Your task to perform on an android device: turn on improve location accuracy Image 0: 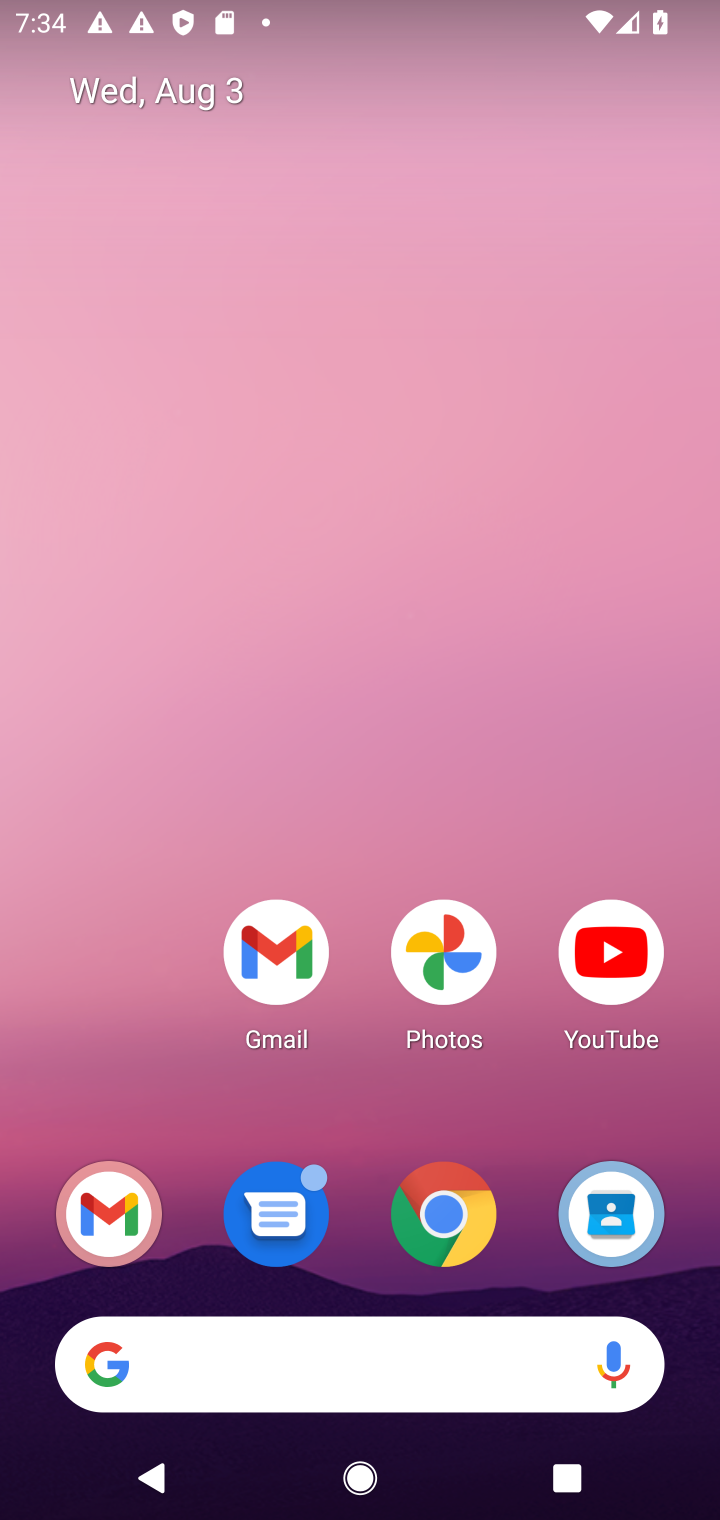
Step 0: drag from (384, 1009) to (508, 69)
Your task to perform on an android device: turn on improve location accuracy Image 1: 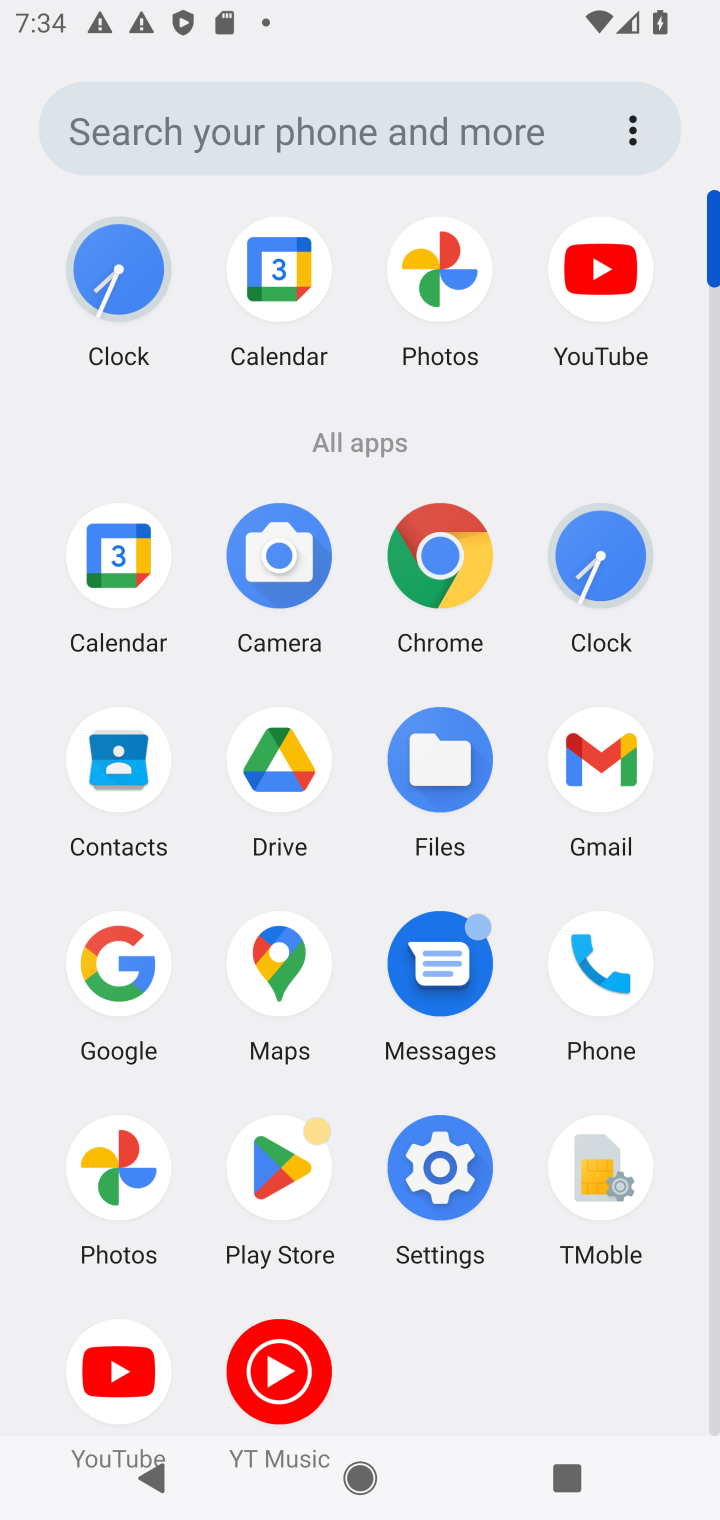
Step 1: click (437, 1162)
Your task to perform on an android device: turn on improve location accuracy Image 2: 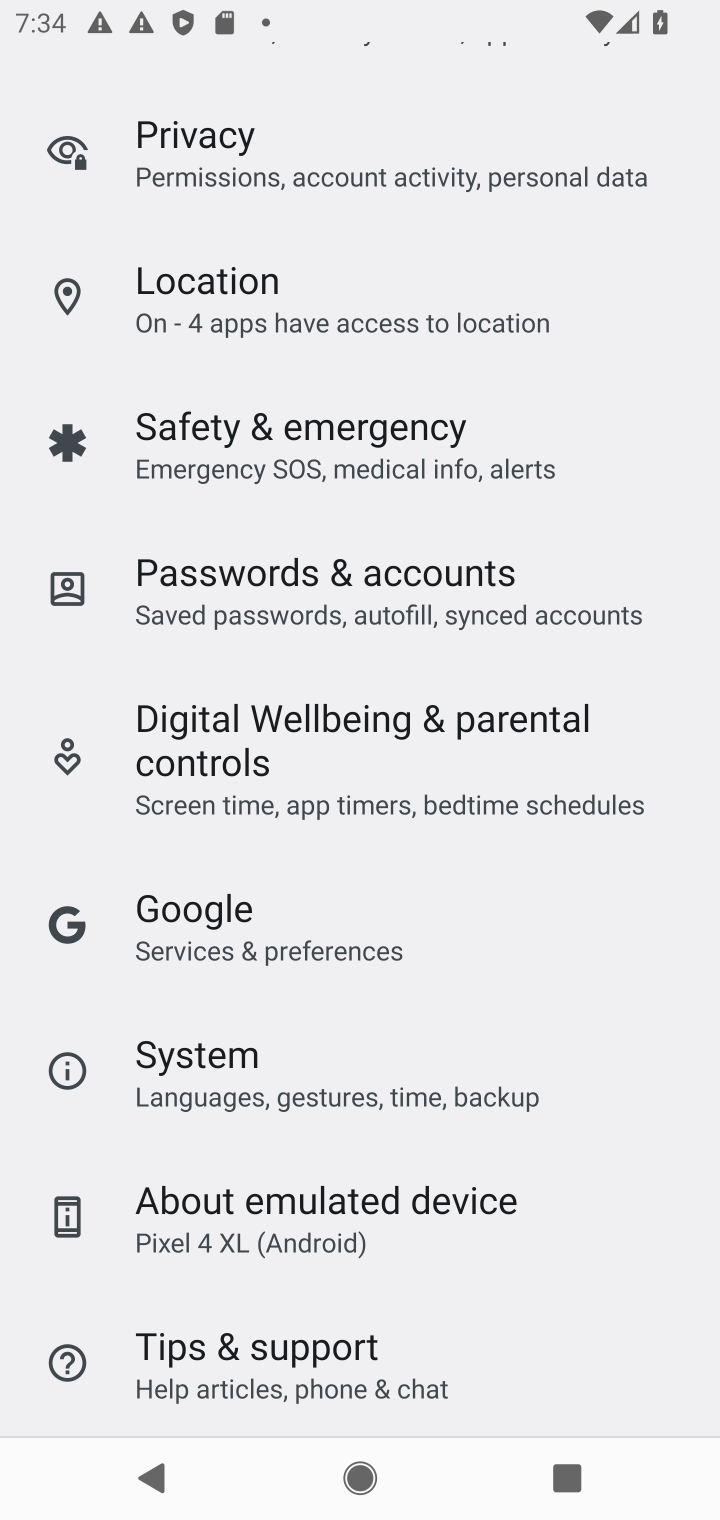
Step 2: click (259, 309)
Your task to perform on an android device: turn on improve location accuracy Image 3: 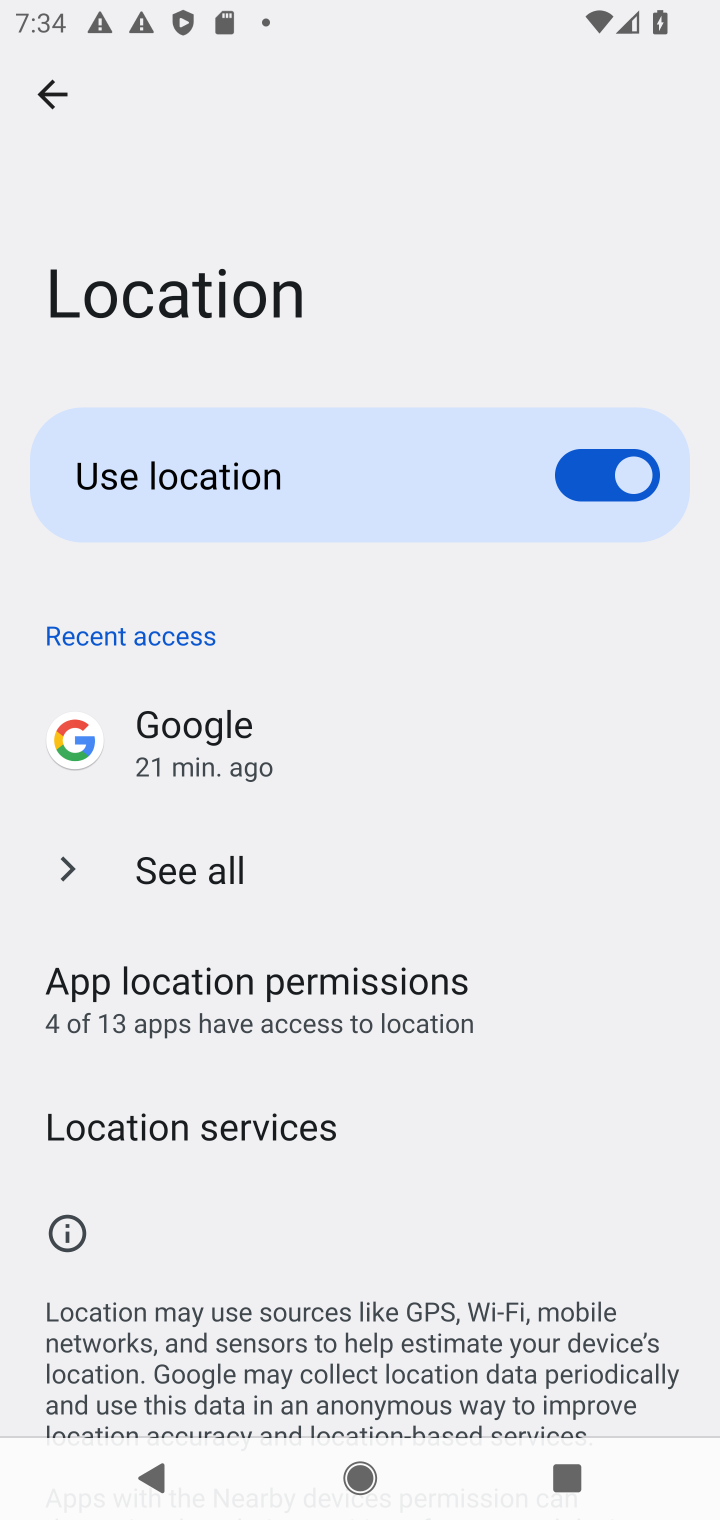
Step 3: drag from (315, 1238) to (283, 378)
Your task to perform on an android device: turn on improve location accuracy Image 4: 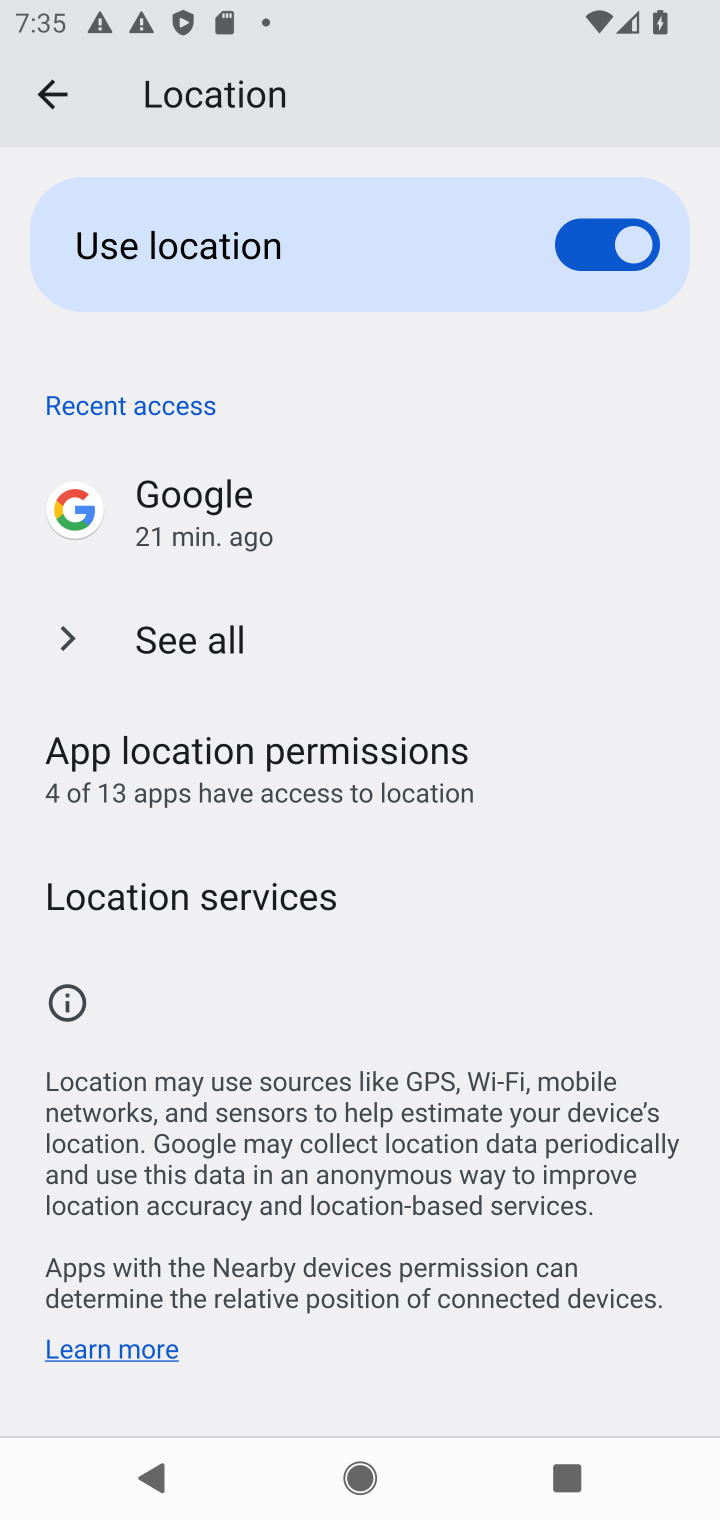
Step 4: click (217, 893)
Your task to perform on an android device: turn on improve location accuracy Image 5: 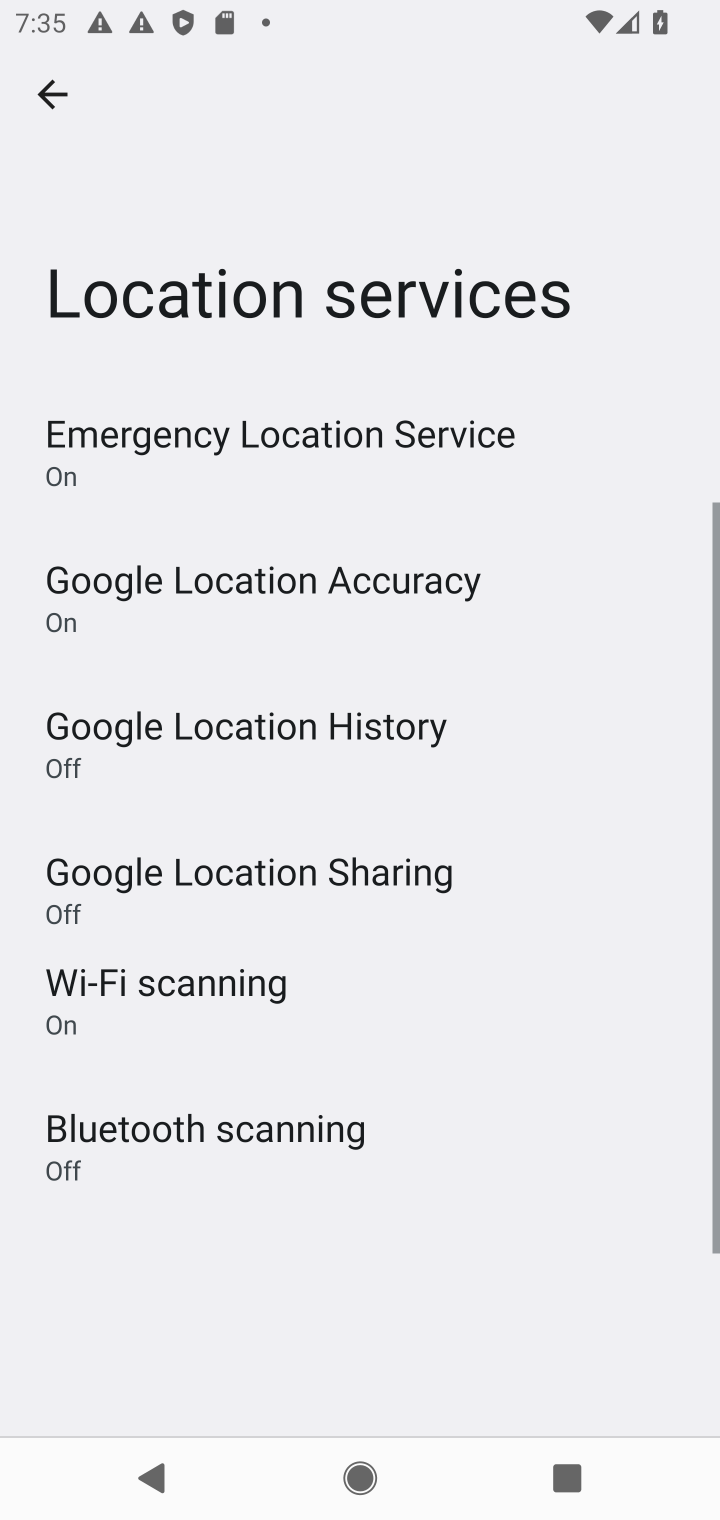
Step 5: click (304, 588)
Your task to perform on an android device: turn on improve location accuracy Image 6: 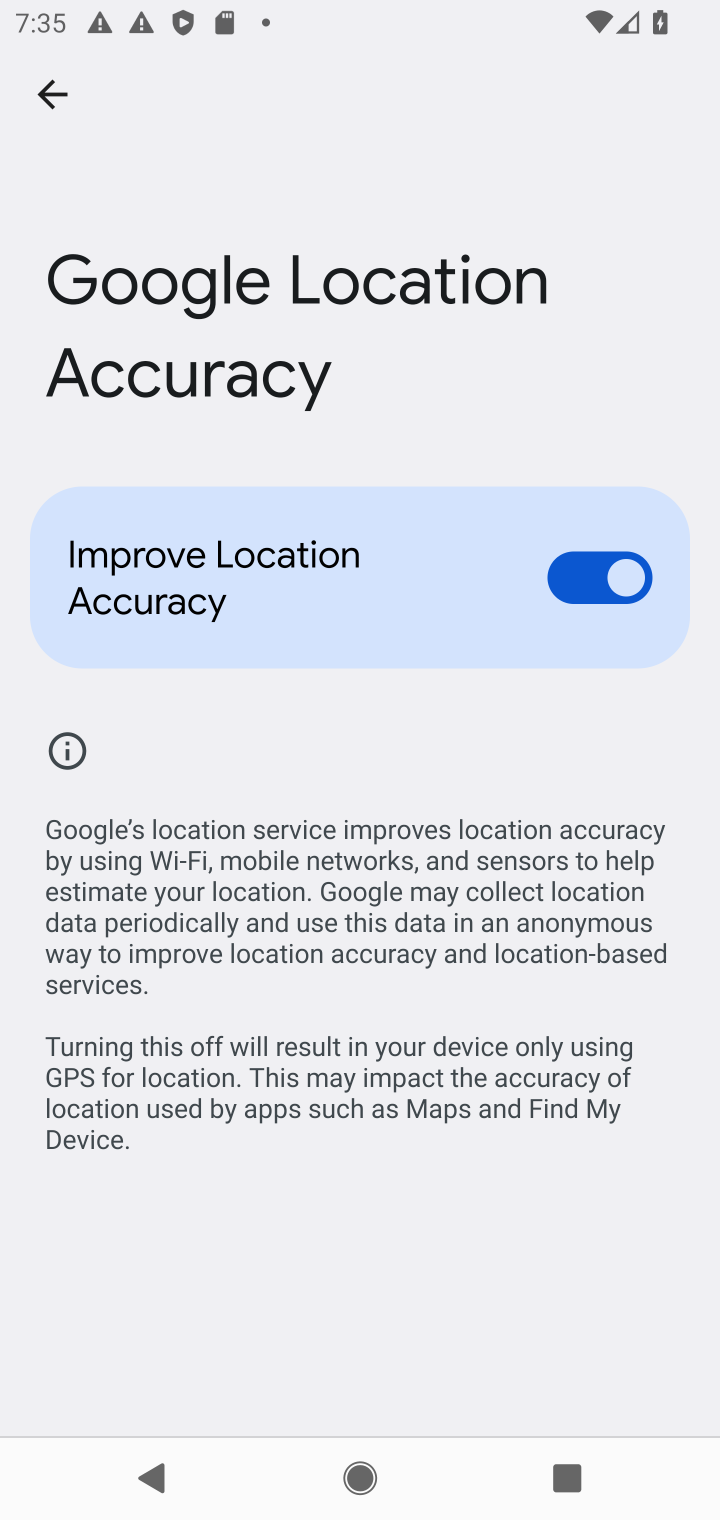
Step 6: task complete